Your task to perform on an android device: check data usage Image 0: 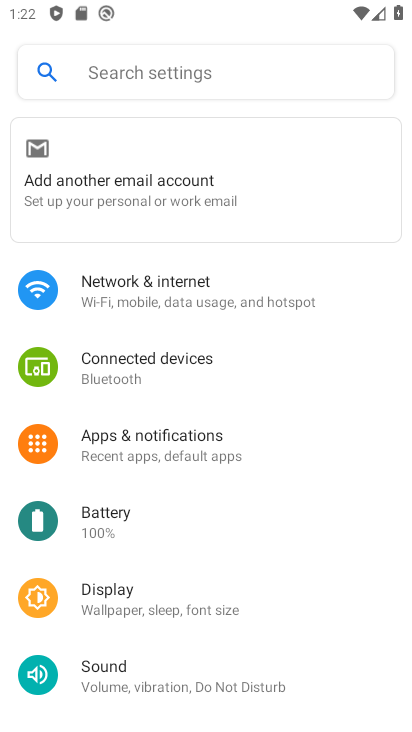
Step 0: click (131, 298)
Your task to perform on an android device: check data usage Image 1: 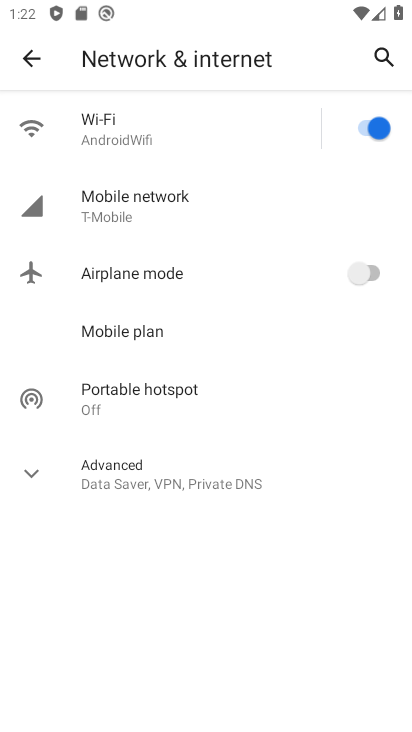
Step 1: click (177, 216)
Your task to perform on an android device: check data usage Image 2: 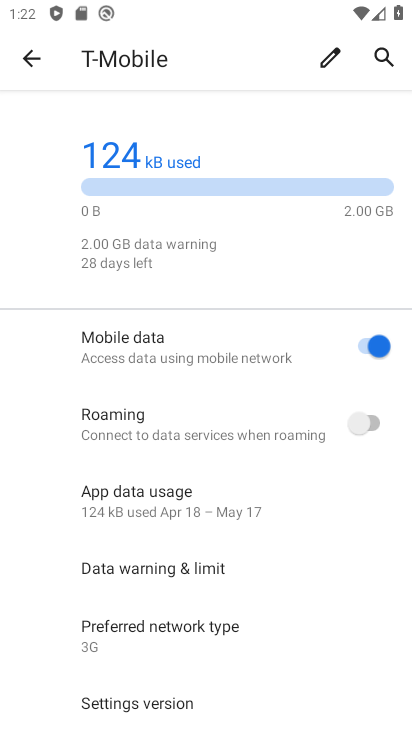
Step 2: task complete